Your task to perform on an android device: open sync settings in chrome Image 0: 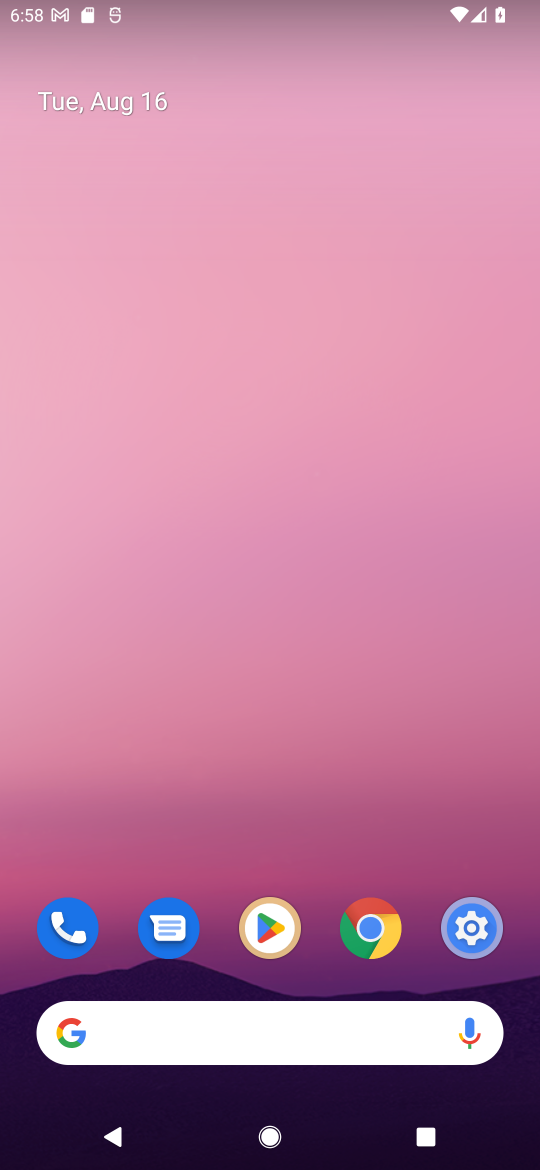
Step 0: click (370, 940)
Your task to perform on an android device: open sync settings in chrome Image 1: 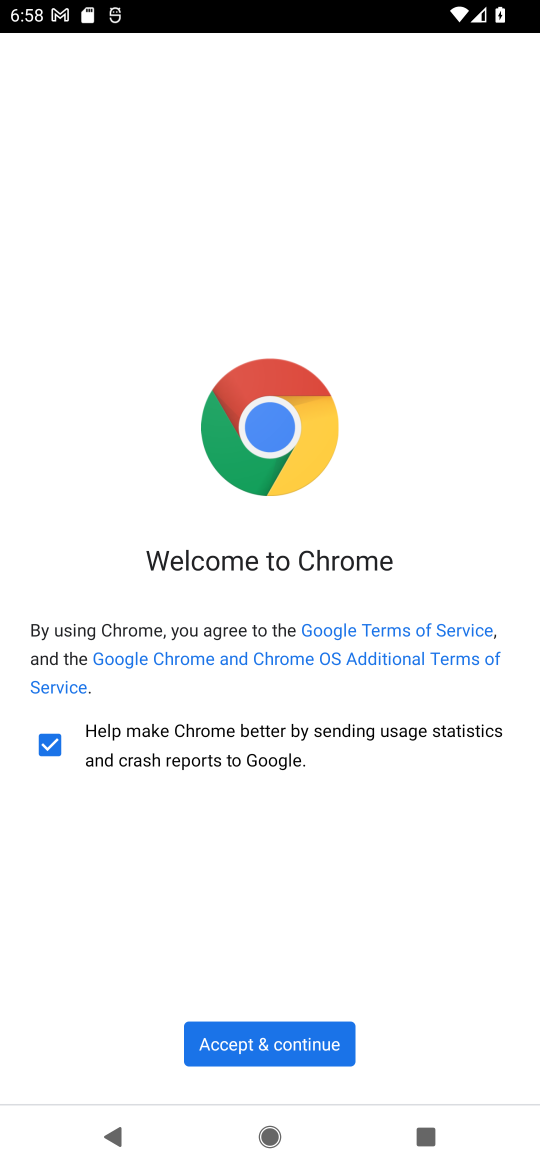
Step 1: click (278, 1061)
Your task to perform on an android device: open sync settings in chrome Image 2: 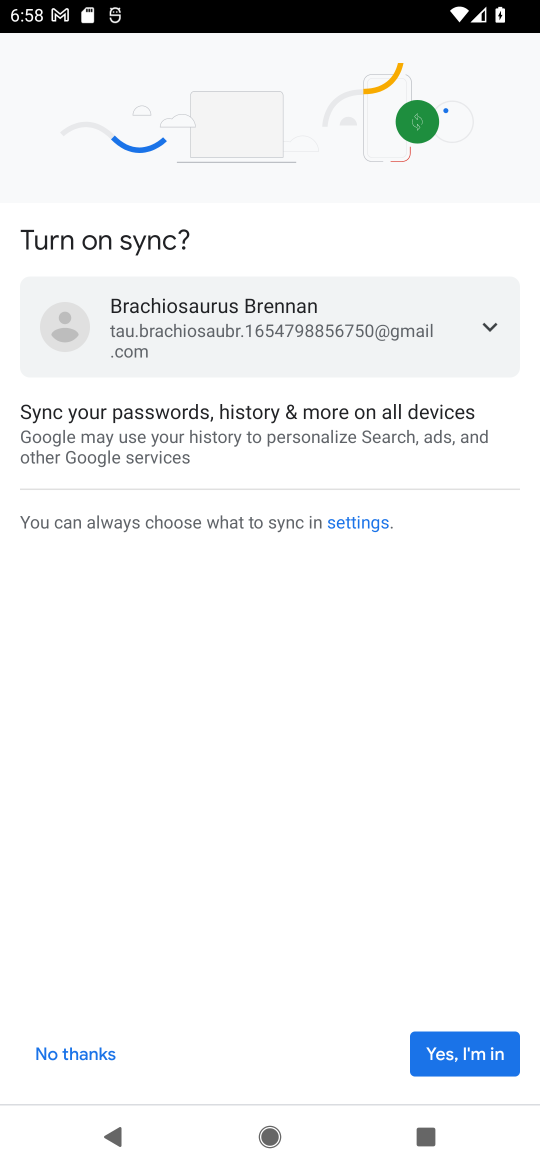
Step 2: click (474, 1049)
Your task to perform on an android device: open sync settings in chrome Image 3: 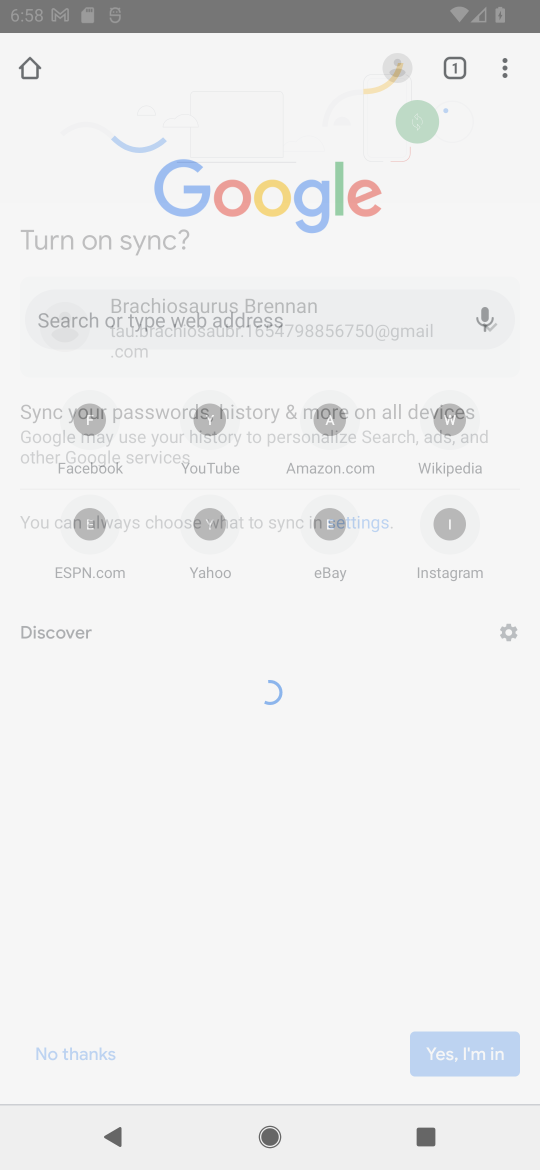
Step 3: click (474, 1049)
Your task to perform on an android device: open sync settings in chrome Image 4: 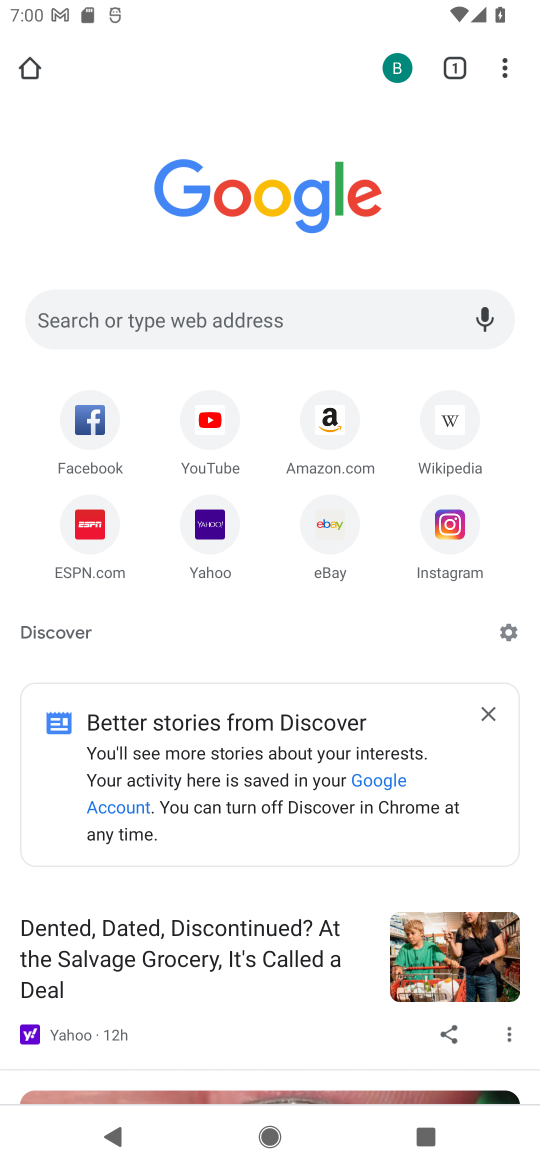
Step 4: drag from (503, 70) to (364, 596)
Your task to perform on an android device: open sync settings in chrome Image 5: 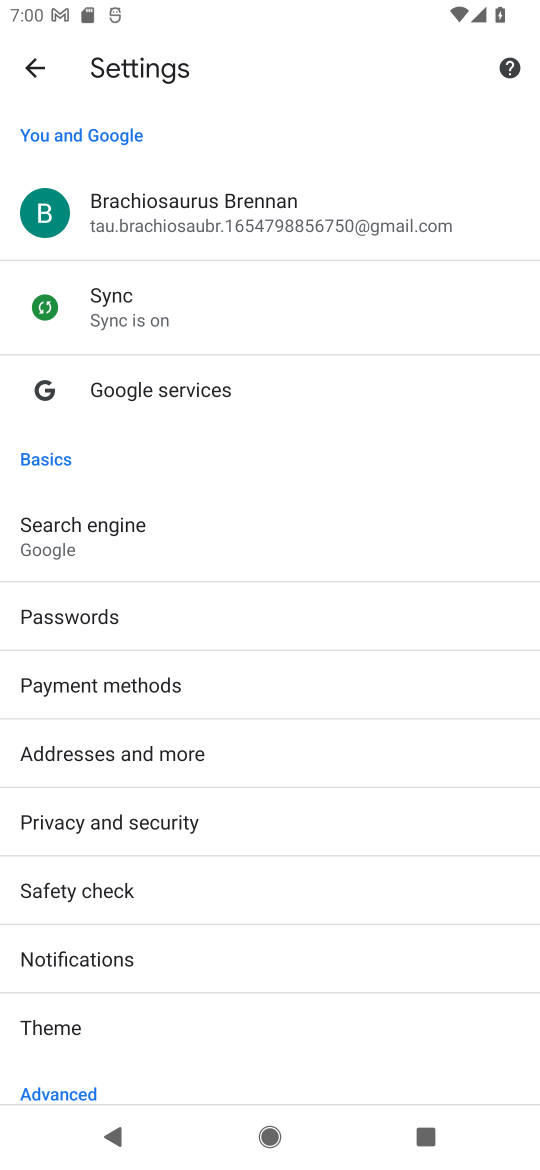
Step 5: click (112, 320)
Your task to perform on an android device: open sync settings in chrome Image 6: 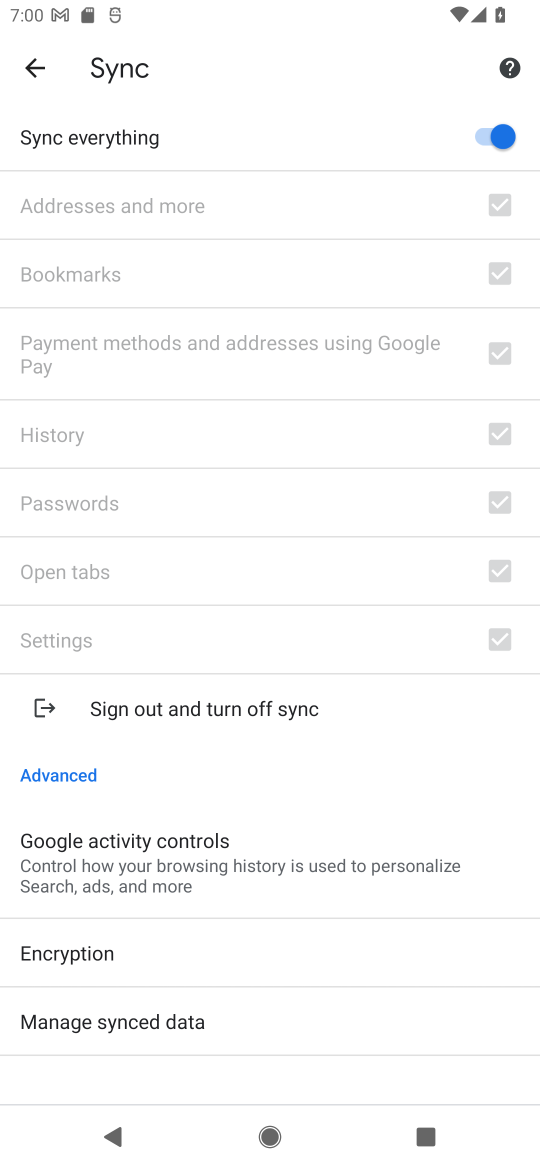
Step 6: task complete